Your task to perform on an android device: Open Youtube and go to the subscriptions tab Image 0: 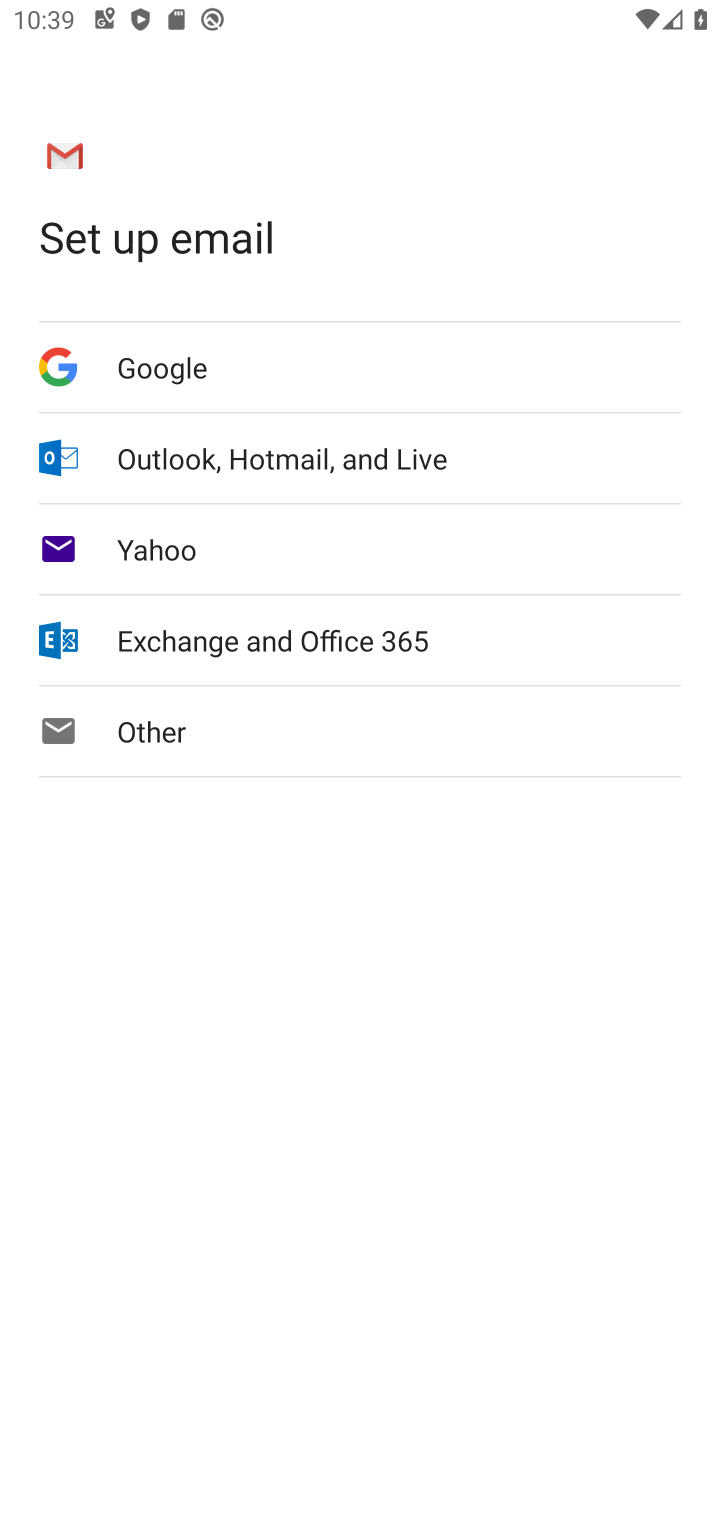
Step 0: press back button
Your task to perform on an android device: Open Youtube and go to the subscriptions tab Image 1: 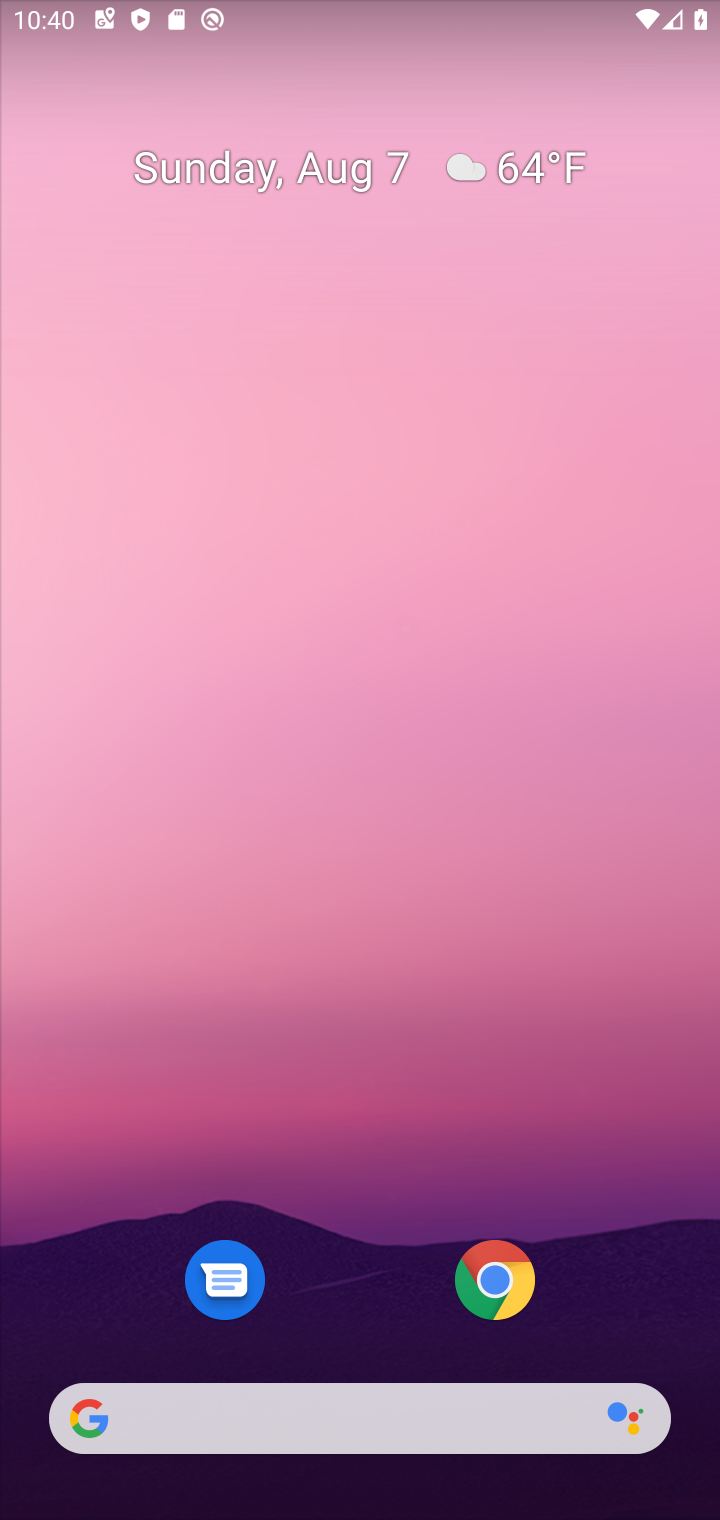
Step 1: drag from (348, 1246) to (561, 32)
Your task to perform on an android device: Open Youtube and go to the subscriptions tab Image 2: 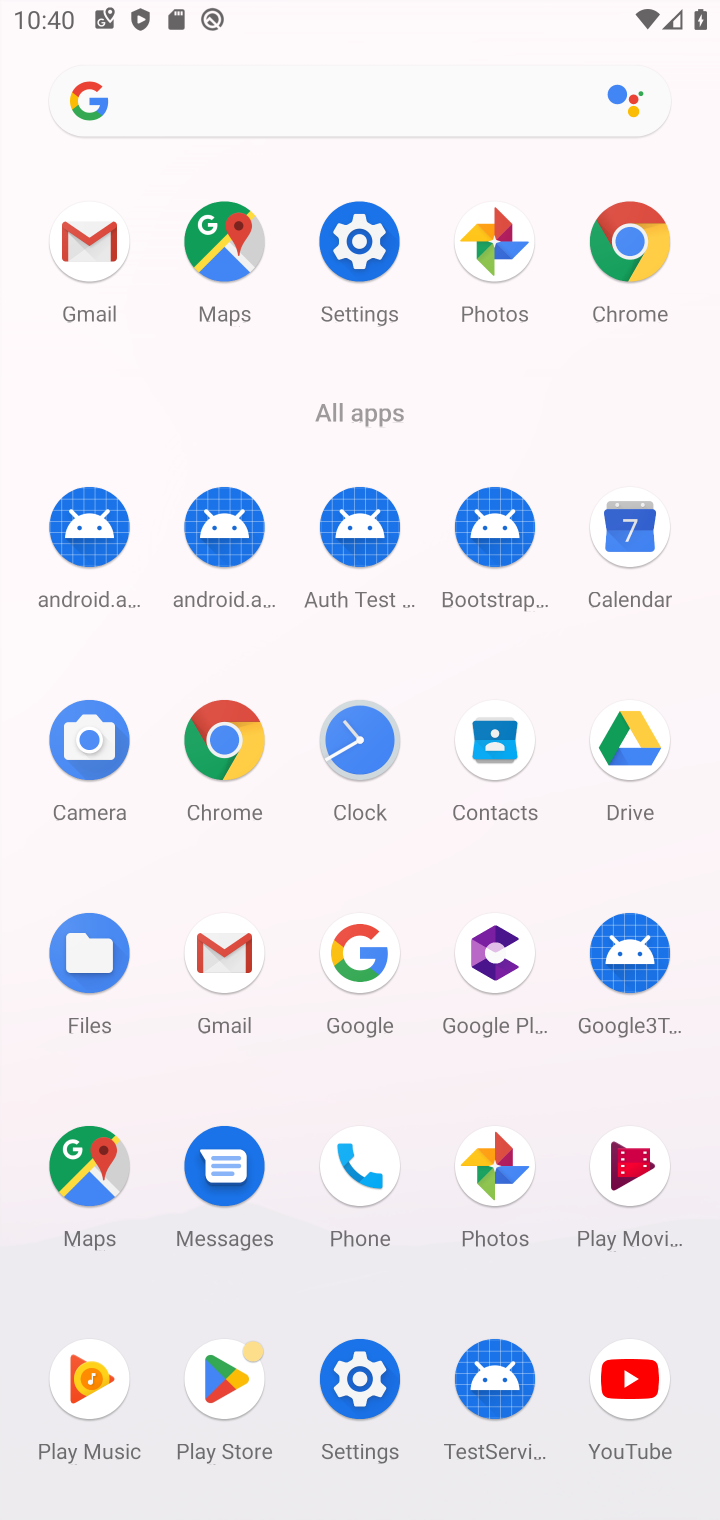
Step 2: click (620, 1405)
Your task to perform on an android device: Open Youtube and go to the subscriptions tab Image 3: 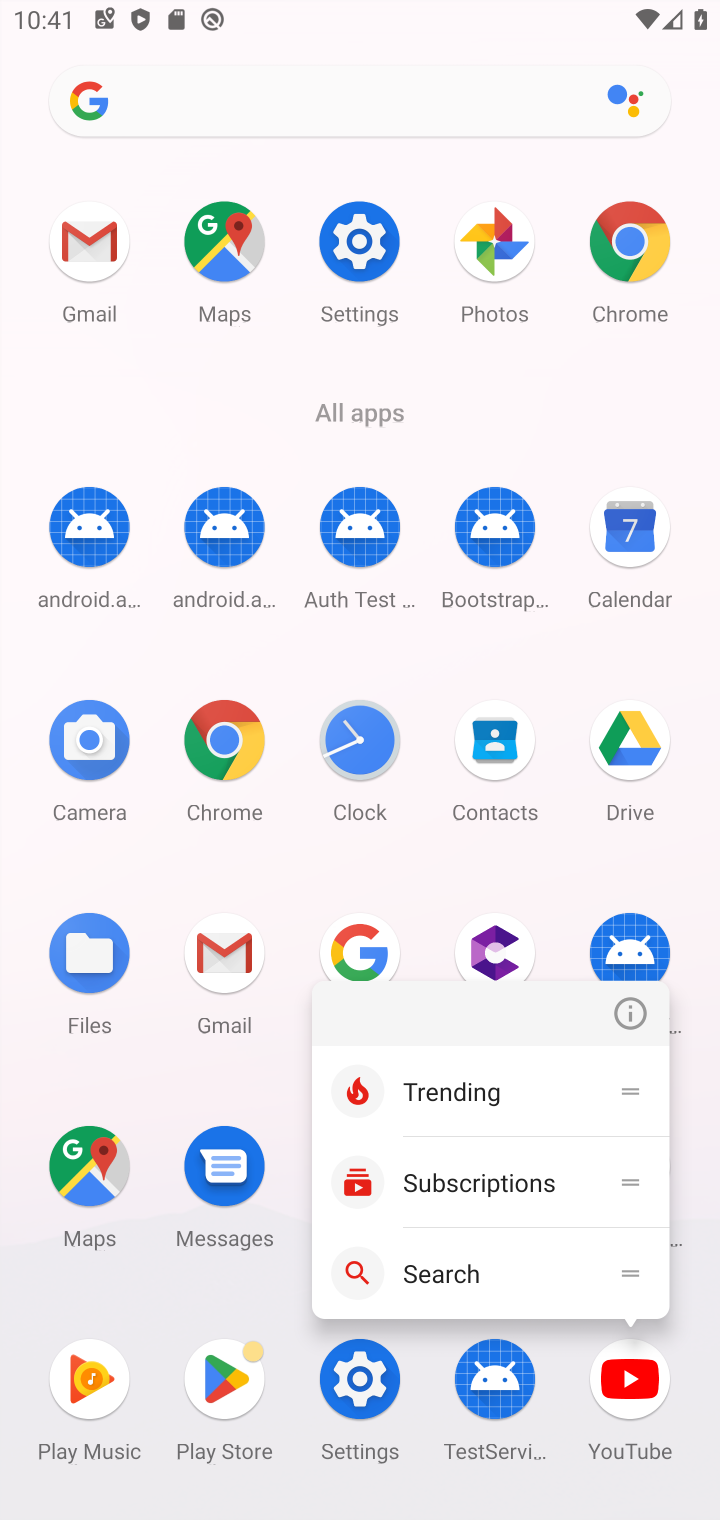
Step 3: click (617, 1389)
Your task to perform on an android device: Open Youtube and go to the subscriptions tab Image 4: 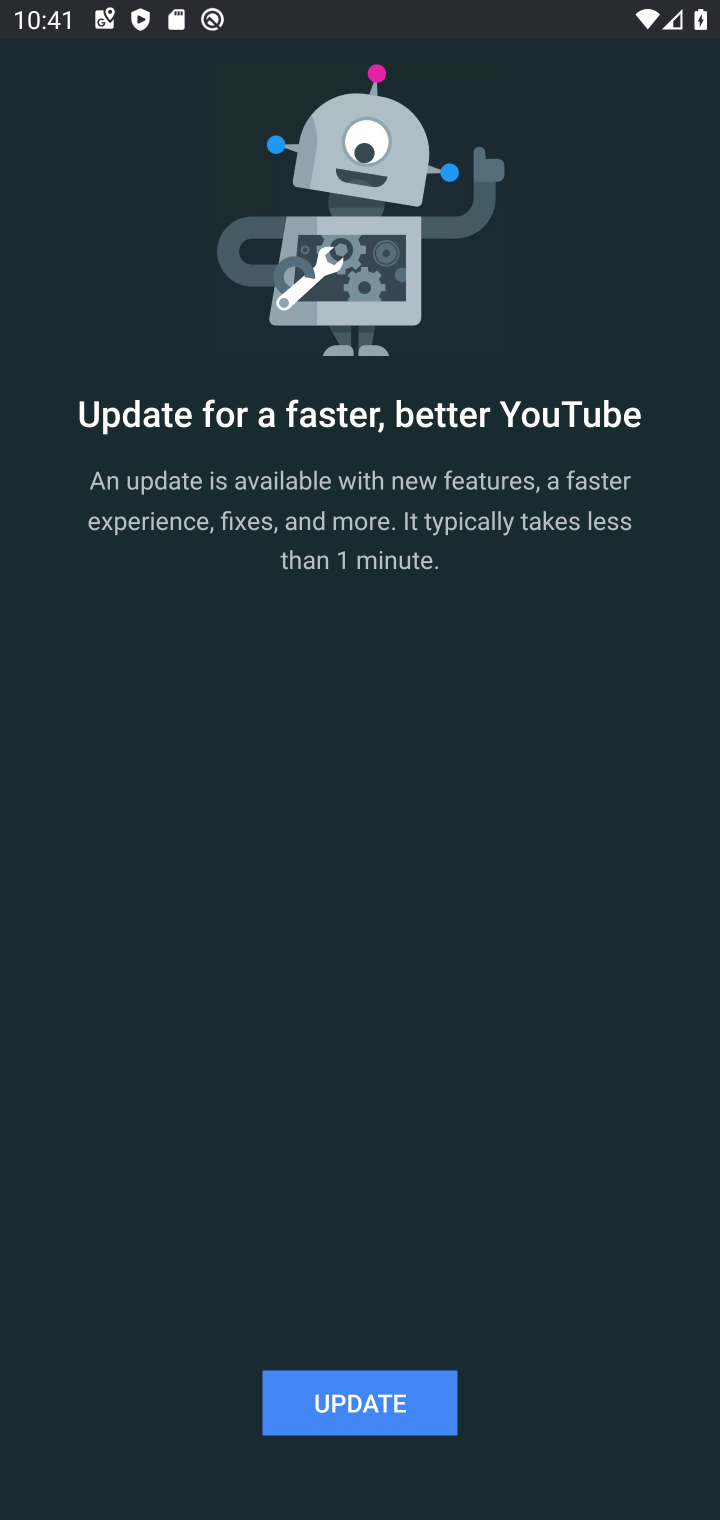
Step 4: task complete